Your task to perform on an android device: Open Android settings Image 0: 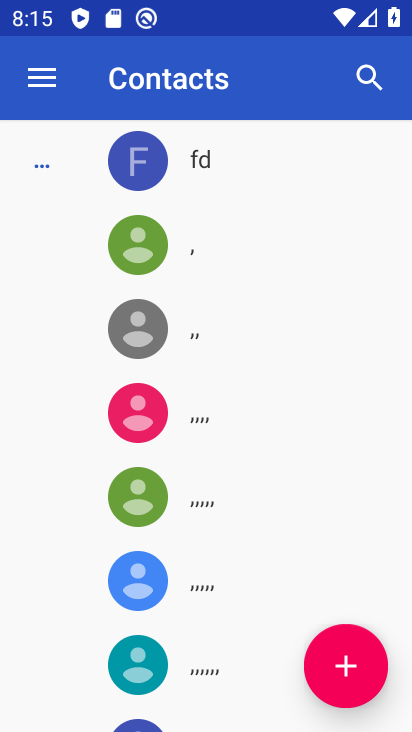
Step 0: press home button
Your task to perform on an android device: Open Android settings Image 1: 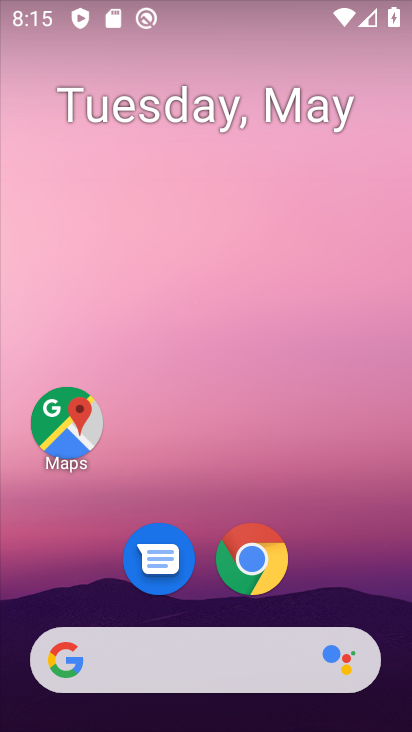
Step 1: drag from (238, 654) to (135, 95)
Your task to perform on an android device: Open Android settings Image 2: 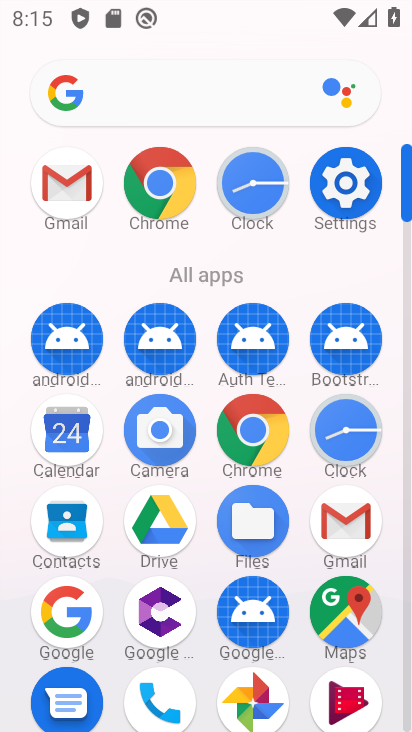
Step 2: click (321, 186)
Your task to perform on an android device: Open Android settings Image 3: 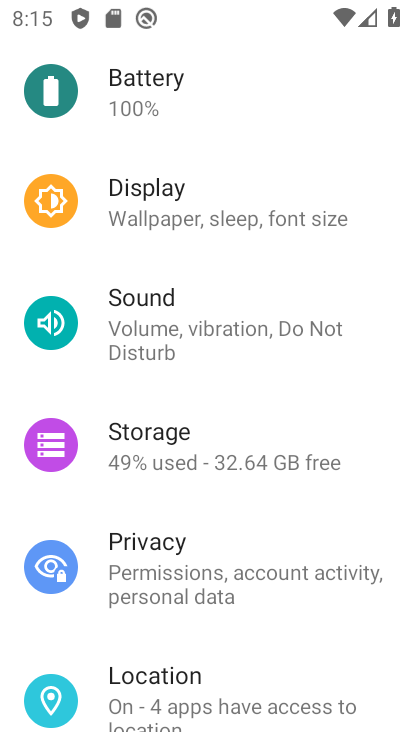
Step 3: task complete